Your task to perform on an android device: Open the calendar app, open the side menu, and click the "Day" option Image 0: 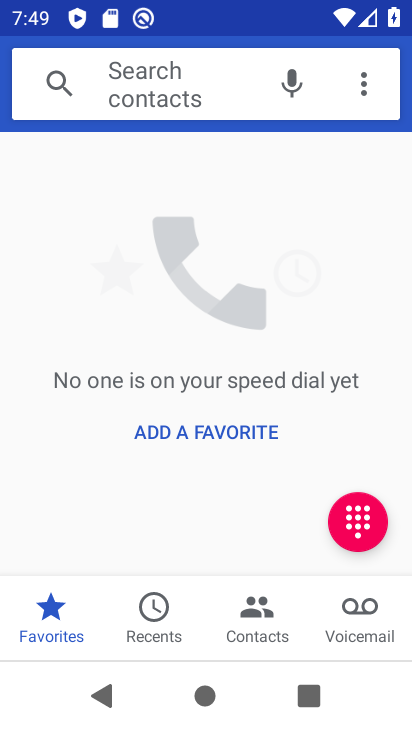
Step 0: press home button
Your task to perform on an android device: Open the calendar app, open the side menu, and click the "Day" option Image 1: 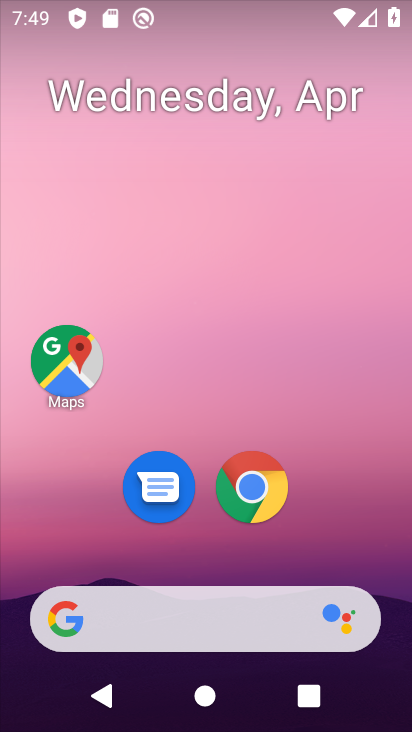
Step 1: drag from (370, 518) to (358, 105)
Your task to perform on an android device: Open the calendar app, open the side menu, and click the "Day" option Image 2: 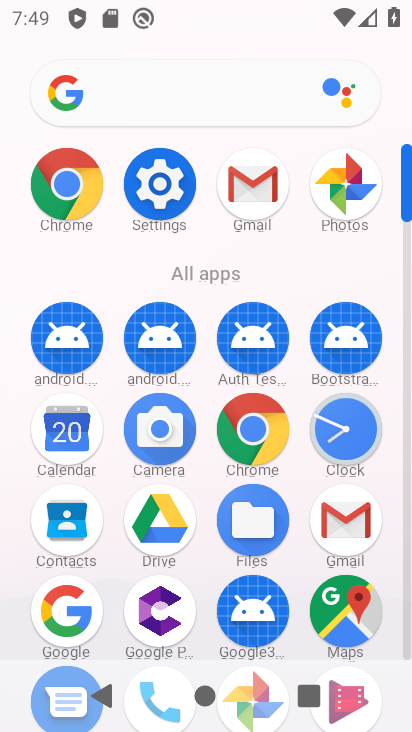
Step 2: click (48, 440)
Your task to perform on an android device: Open the calendar app, open the side menu, and click the "Day" option Image 3: 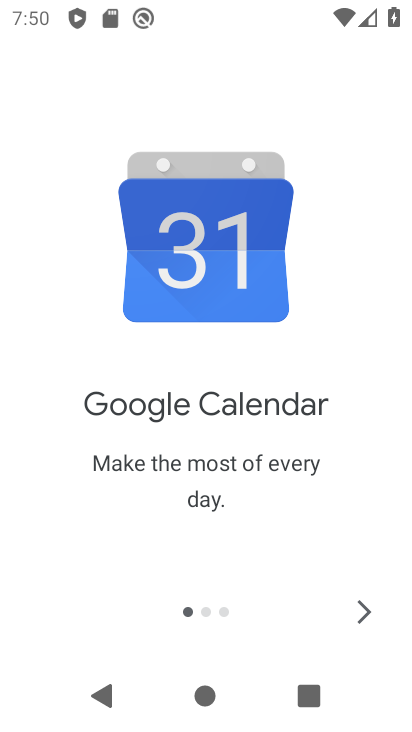
Step 3: click (370, 619)
Your task to perform on an android device: Open the calendar app, open the side menu, and click the "Day" option Image 4: 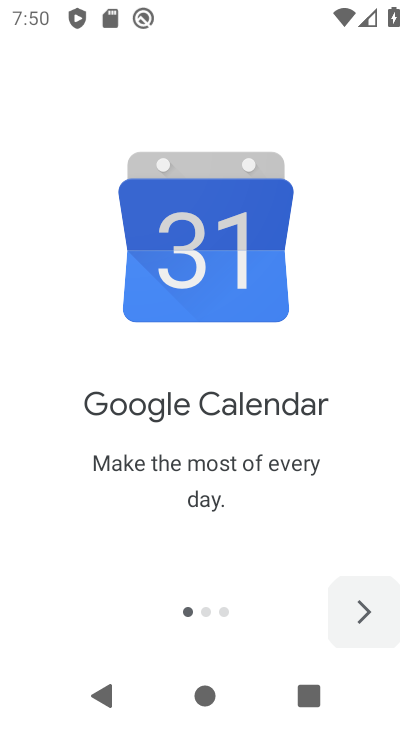
Step 4: click (370, 619)
Your task to perform on an android device: Open the calendar app, open the side menu, and click the "Day" option Image 5: 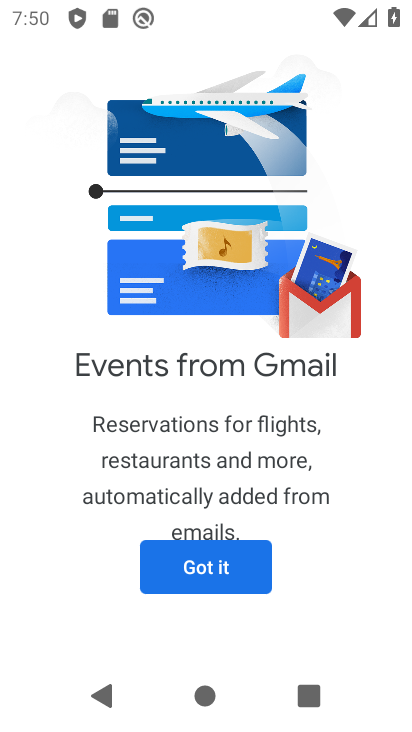
Step 5: click (370, 618)
Your task to perform on an android device: Open the calendar app, open the side menu, and click the "Day" option Image 6: 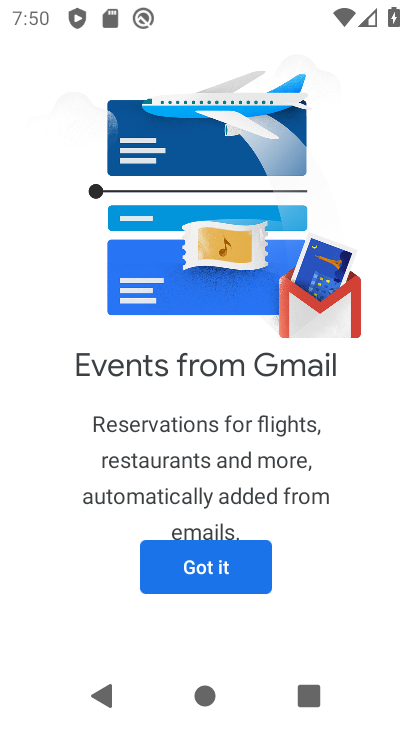
Step 6: click (227, 564)
Your task to perform on an android device: Open the calendar app, open the side menu, and click the "Day" option Image 7: 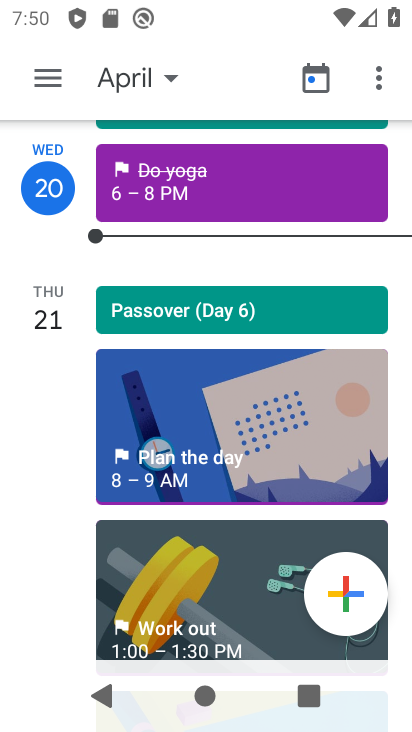
Step 7: click (51, 76)
Your task to perform on an android device: Open the calendar app, open the side menu, and click the "Day" option Image 8: 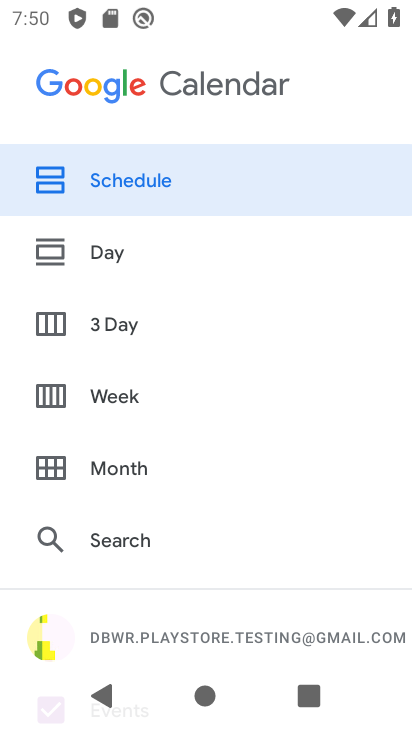
Step 8: click (130, 254)
Your task to perform on an android device: Open the calendar app, open the side menu, and click the "Day" option Image 9: 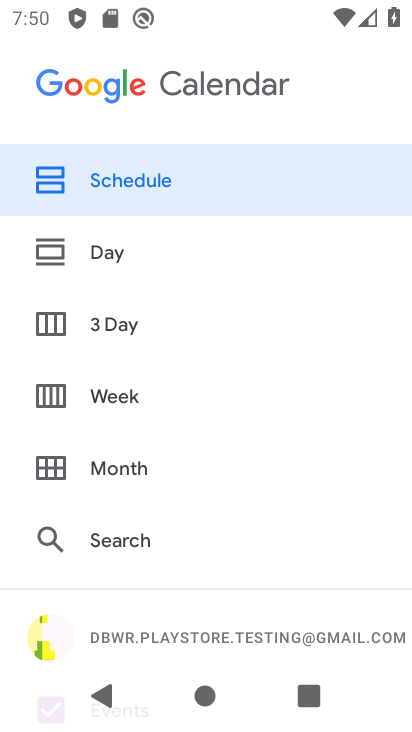
Step 9: click (119, 254)
Your task to perform on an android device: Open the calendar app, open the side menu, and click the "Day" option Image 10: 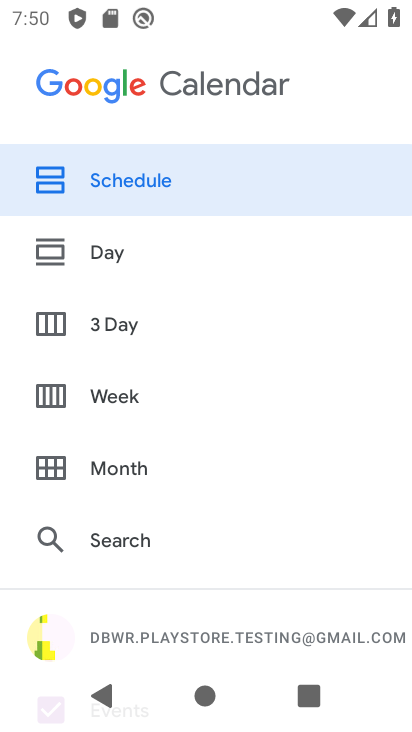
Step 10: click (119, 254)
Your task to perform on an android device: Open the calendar app, open the side menu, and click the "Day" option Image 11: 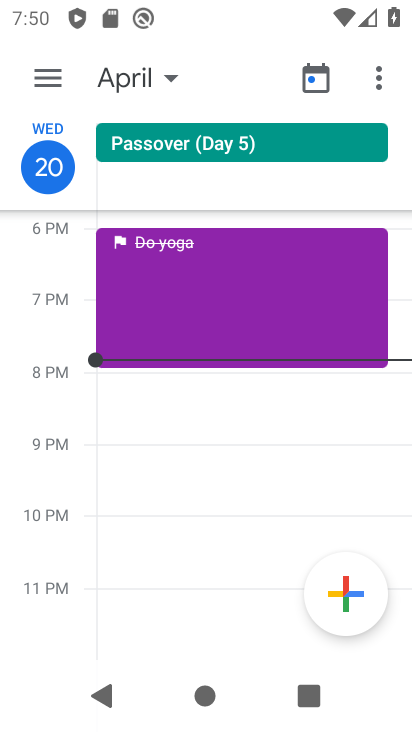
Step 11: task complete